Your task to perform on an android device: Show me popular games on the Play Store Image 0: 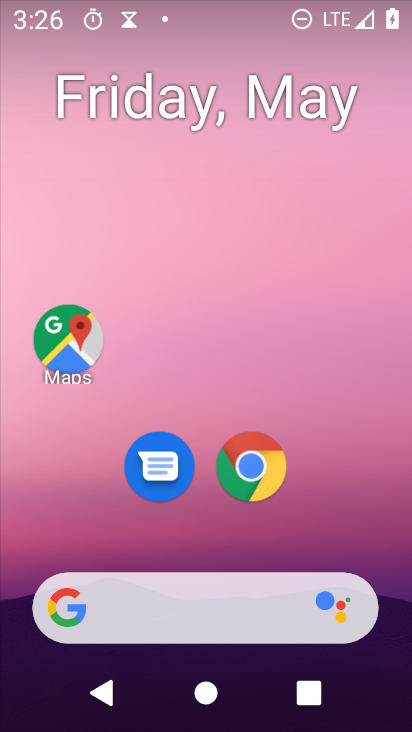
Step 0: drag from (333, 544) to (343, 78)
Your task to perform on an android device: Show me popular games on the Play Store Image 1: 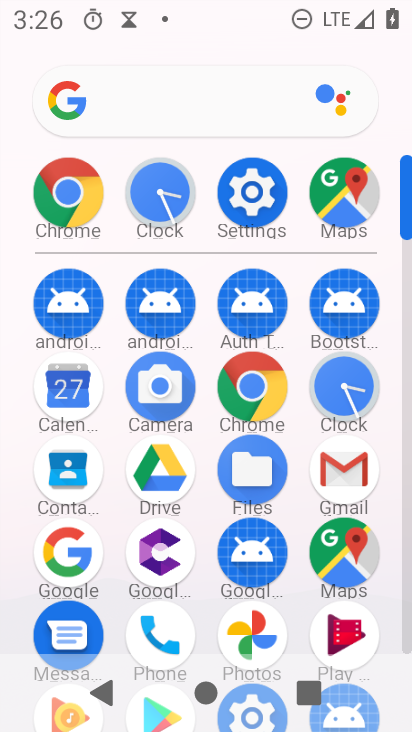
Step 1: drag from (393, 633) to (411, 159)
Your task to perform on an android device: Show me popular games on the Play Store Image 2: 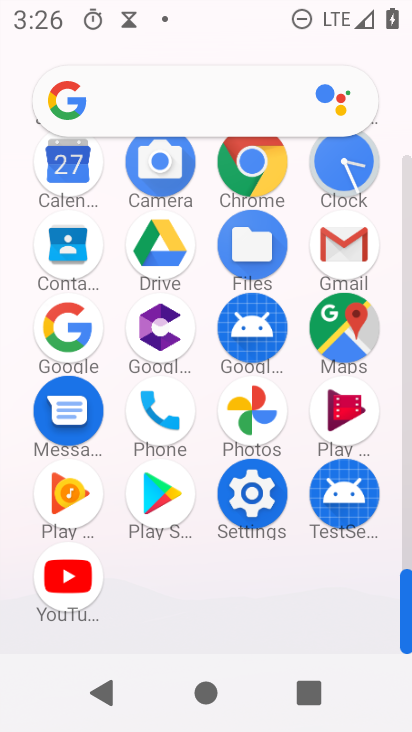
Step 2: click (174, 500)
Your task to perform on an android device: Show me popular games on the Play Store Image 3: 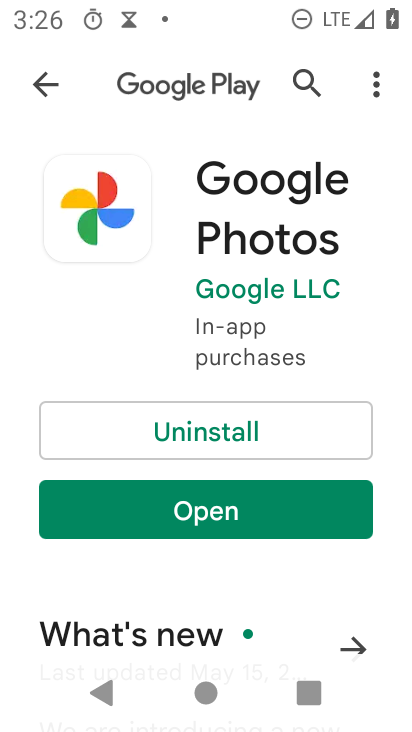
Step 3: click (229, 522)
Your task to perform on an android device: Show me popular games on the Play Store Image 4: 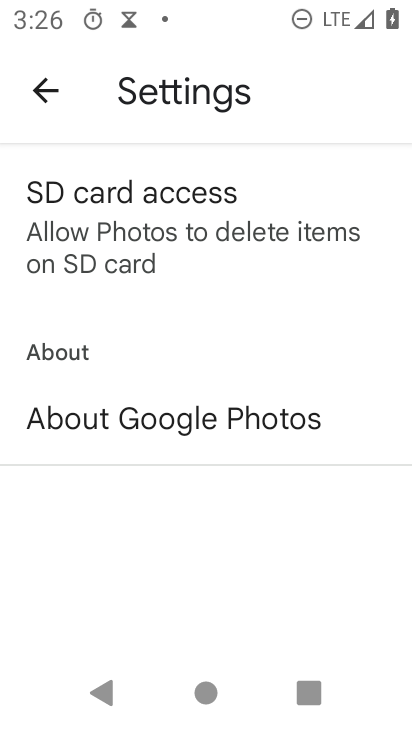
Step 4: click (55, 95)
Your task to perform on an android device: Show me popular games on the Play Store Image 5: 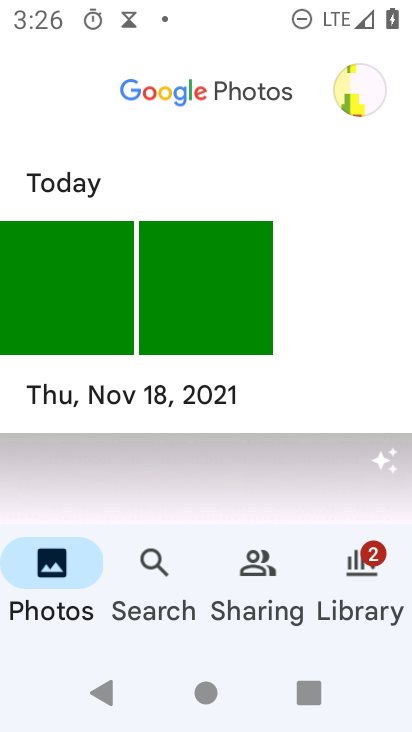
Step 5: press home button
Your task to perform on an android device: Show me popular games on the Play Store Image 6: 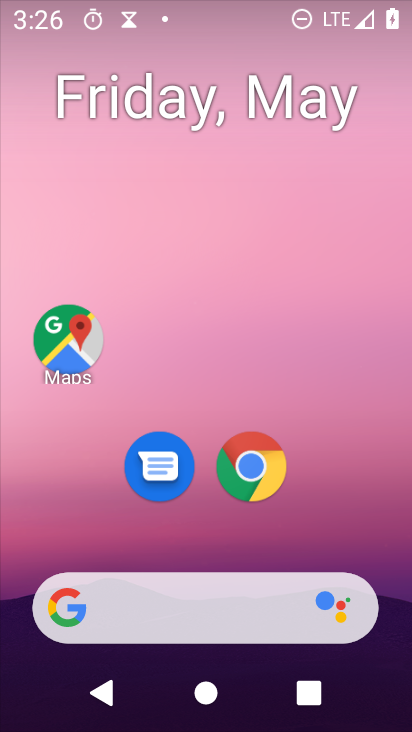
Step 6: drag from (376, 454) to (357, 61)
Your task to perform on an android device: Show me popular games on the Play Store Image 7: 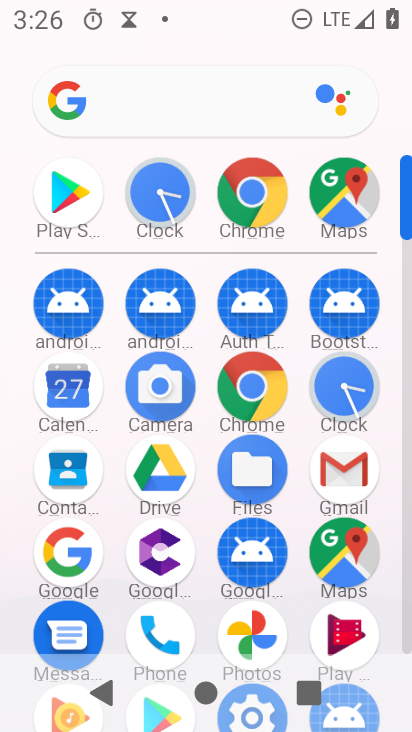
Step 7: click (86, 201)
Your task to perform on an android device: Show me popular games on the Play Store Image 8: 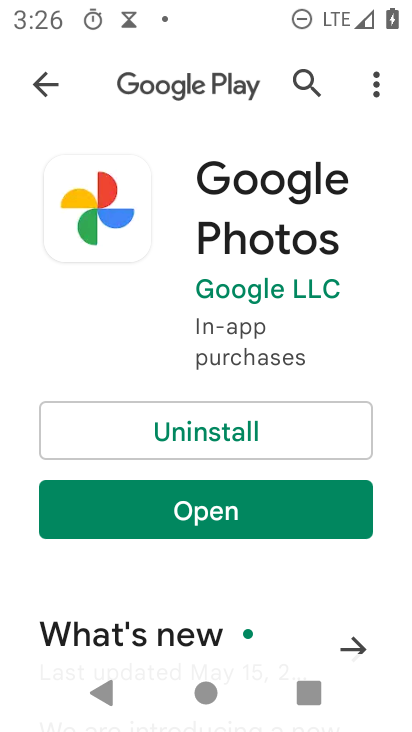
Step 8: click (214, 505)
Your task to perform on an android device: Show me popular games on the Play Store Image 9: 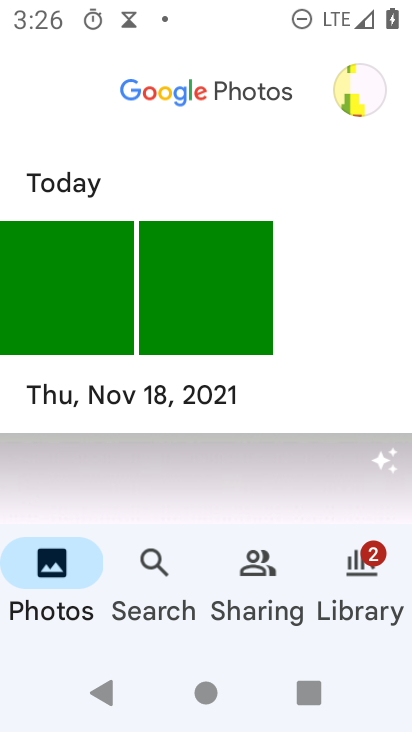
Step 9: click (163, 581)
Your task to perform on an android device: Show me popular games on the Play Store Image 10: 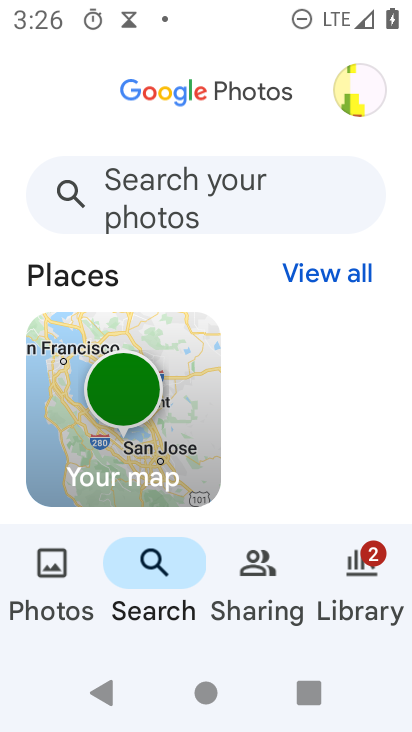
Step 10: click (202, 186)
Your task to perform on an android device: Show me popular games on the Play Store Image 11: 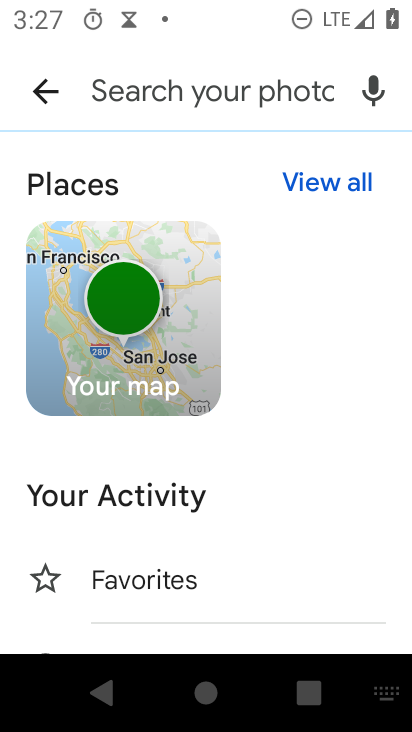
Step 11: type "popular games"
Your task to perform on an android device: Show me popular games on the Play Store Image 12: 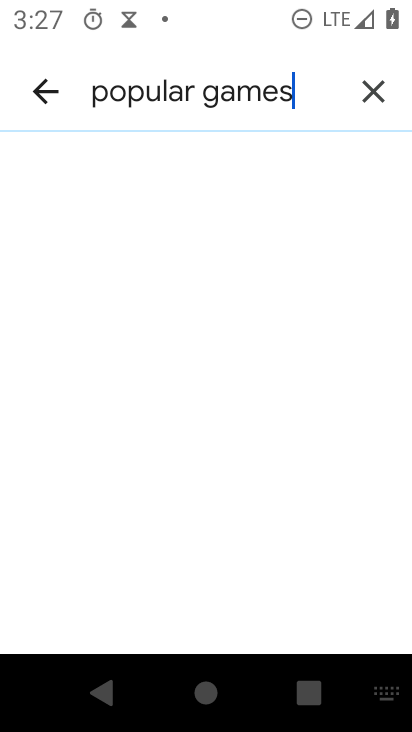
Step 12: press enter
Your task to perform on an android device: Show me popular games on the Play Store Image 13: 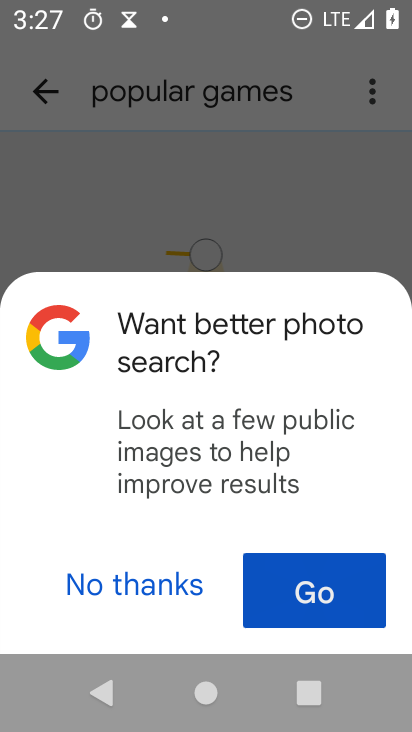
Step 13: click (145, 582)
Your task to perform on an android device: Show me popular games on the Play Store Image 14: 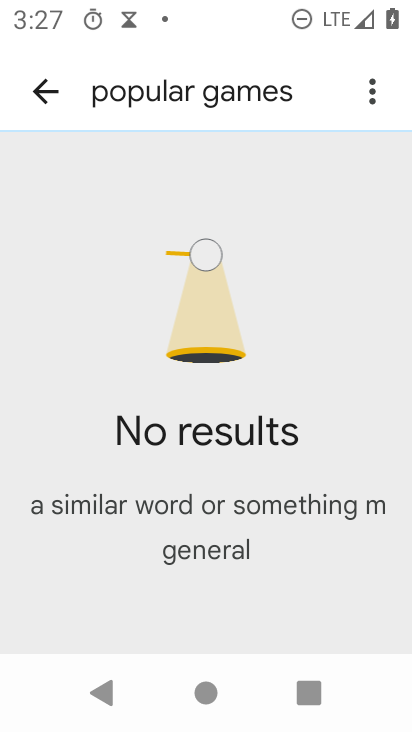
Step 14: task complete